Your task to perform on an android device: toggle javascript in the chrome app Image 0: 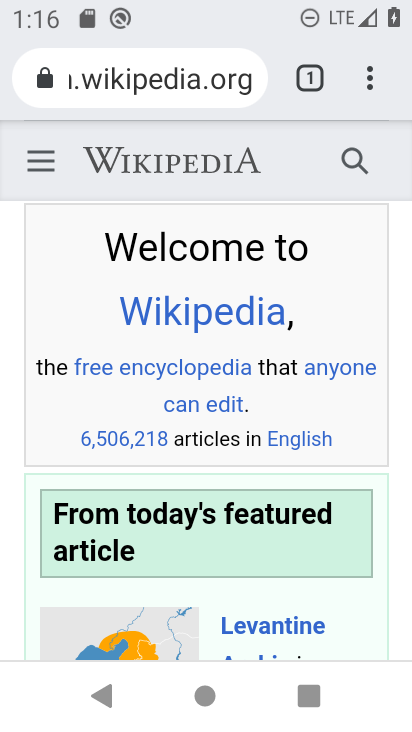
Step 0: press home button
Your task to perform on an android device: toggle javascript in the chrome app Image 1: 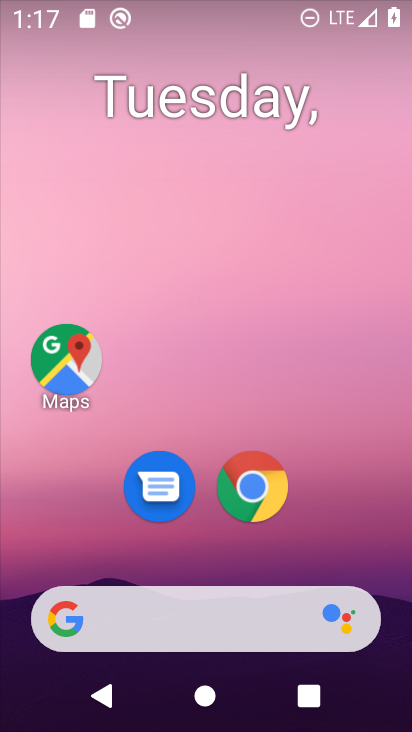
Step 1: click (249, 477)
Your task to perform on an android device: toggle javascript in the chrome app Image 2: 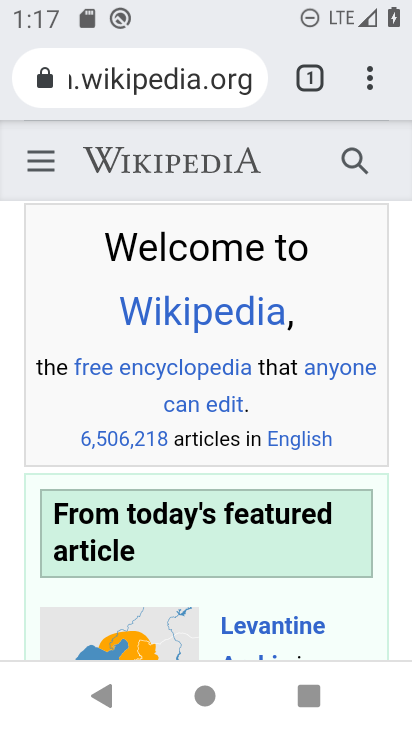
Step 2: click (365, 72)
Your task to perform on an android device: toggle javascript in the chrome app Image 3: 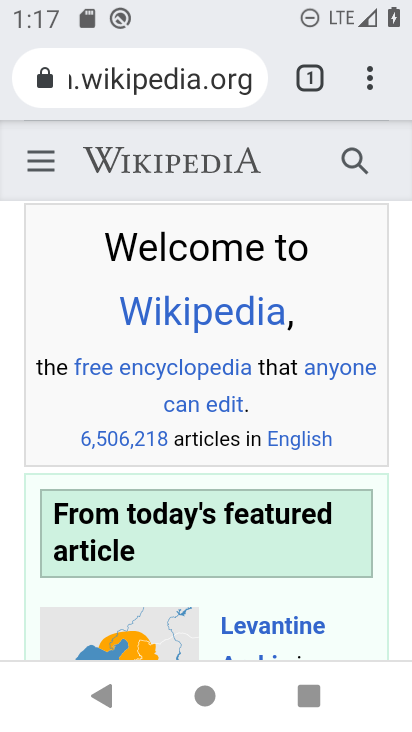
Step 3: click (378, 69)
Your task to perform on an android device: toggle javascript in the chrome app Image 4: 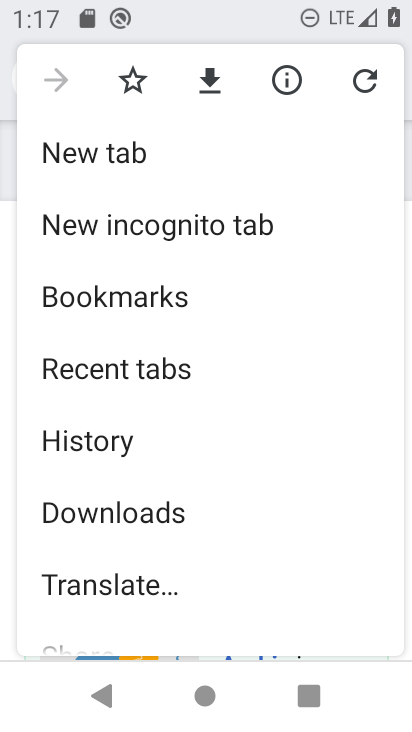
Step 4: drag from (73, 595) to (261, 112)
Your task to perform on an android device: toggle javascript in the chrome app Image 5: 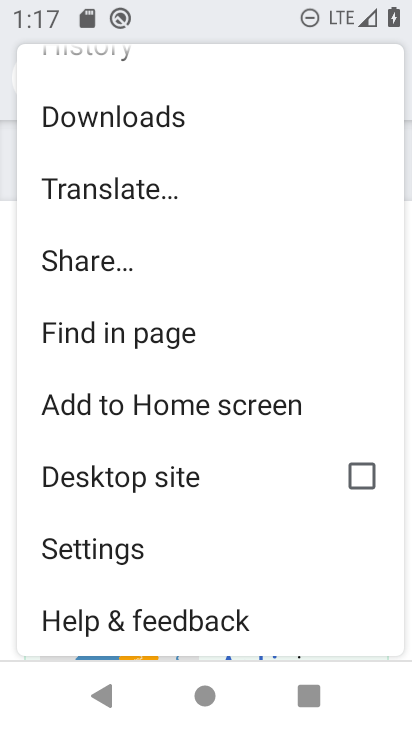
Step 5: click (92, 554)
Your task to perform on an android device: toggle javascript in the chrome app Image 6: 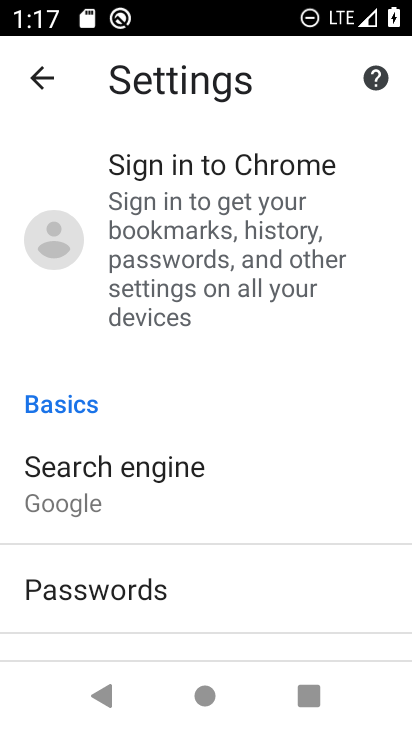
Step 6: drag from (65, 460) to (247, 152)
Your task to perform on an android device: toggle javascript in the chrome app Image 7: 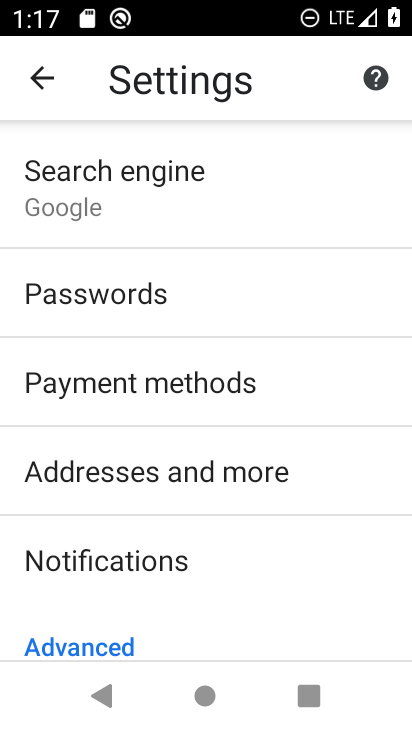
Step 7: drag from (63, 516) to (263, 199)
Your task to perform on an android device: toggle javascript in the chrome app Image 8: 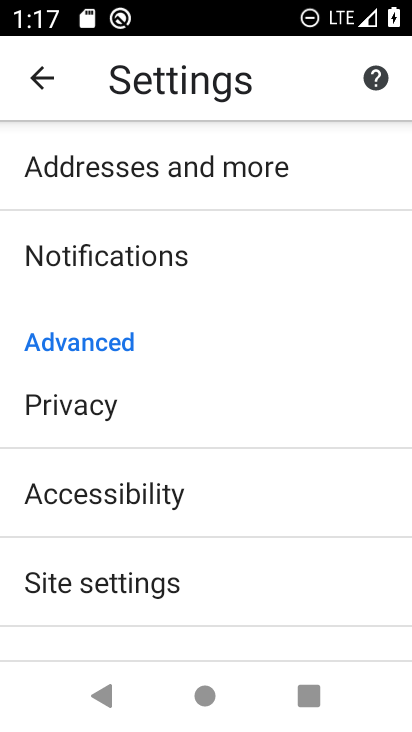
Step 8: click (63, 578)
Your task to perform on an android device: toggle javascript in the chrome app Image 9: 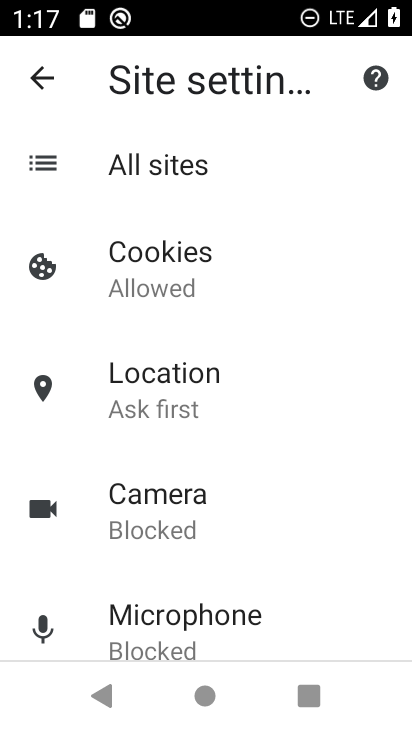
Step 9: drag from (4, 615) to (213, 250)
Your task to perform on an android device: toggle javascript in the chrome app Image 10: 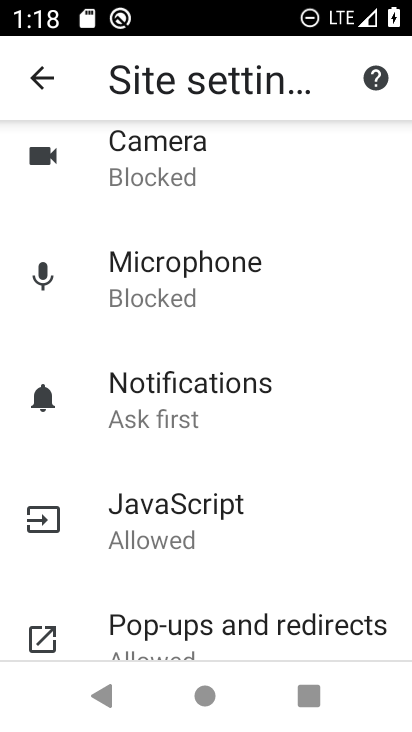
Step 10: click (166, 499)
Your task to perform on an android device: toggle javascript in the chrome app Image 11: 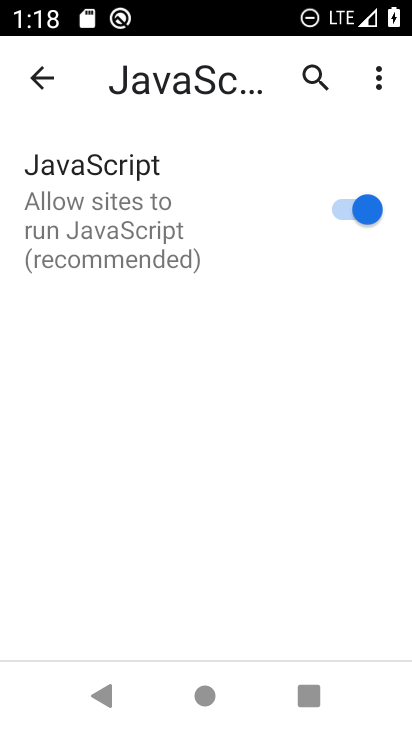
Step 11: click (378, 205)
Your task to perform on an android device: toggle javascript in the chrome app Image 12: 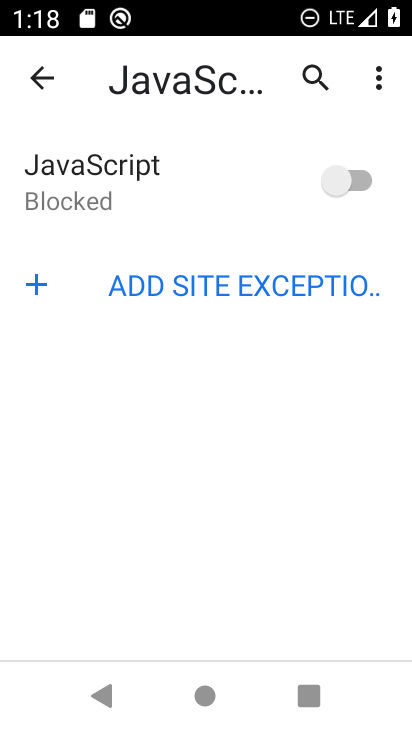
Step 12: task complete